Your task to perform on an android device: Open location settings Image 0: 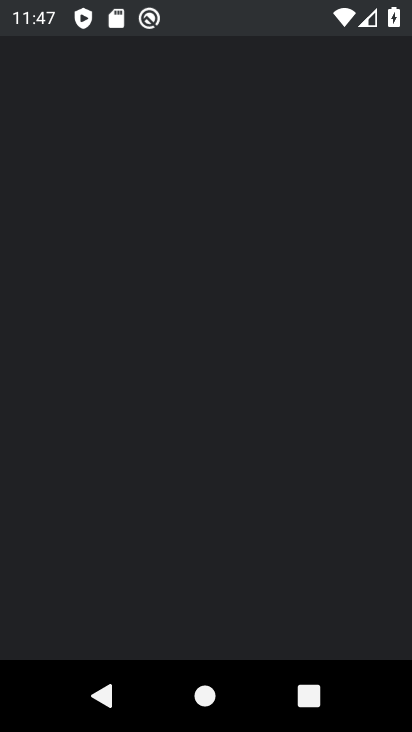
Step 0: drag from (369, 553) to (316, 88)
Your task to perform on an android device: Open location settings Image 1: 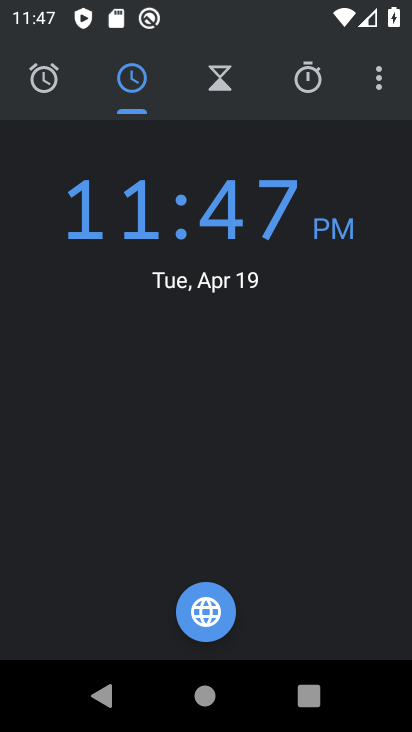
Step 1: press home button
Your task to perform on an android device: Open location settings Image 2: 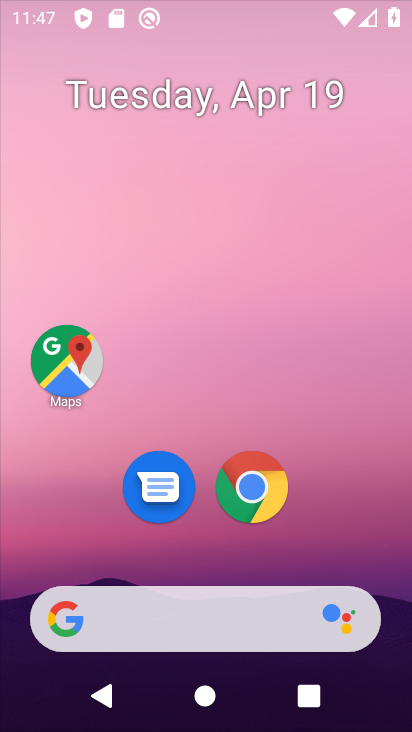
Step 2: drag from (353, 534) to (260, 0)
Your task to perform on an android device: Open location settings Image 3: 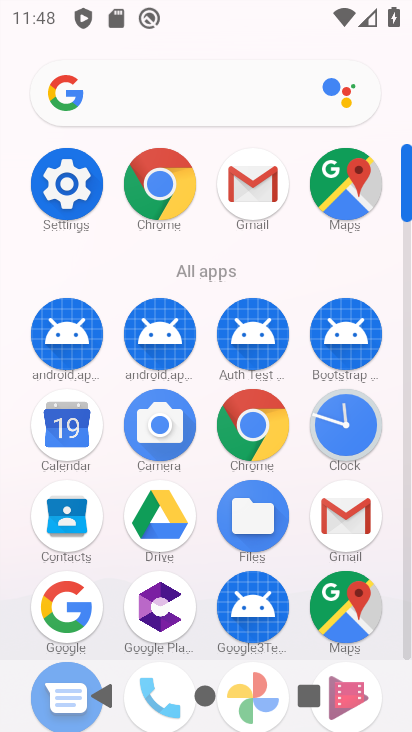
Step 3: click (66, 201)
Your task to perform on an android device: Open location settings Image 4: 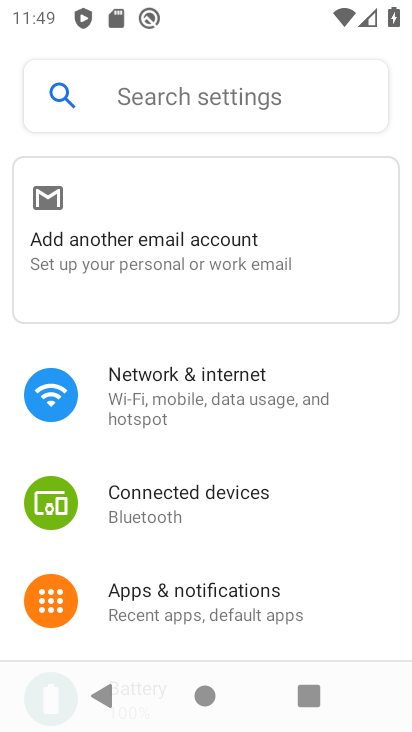
Step 4: drag from (227, 635) to (316, 139)
Your task to perform on an android device: Open location settings Image 5: 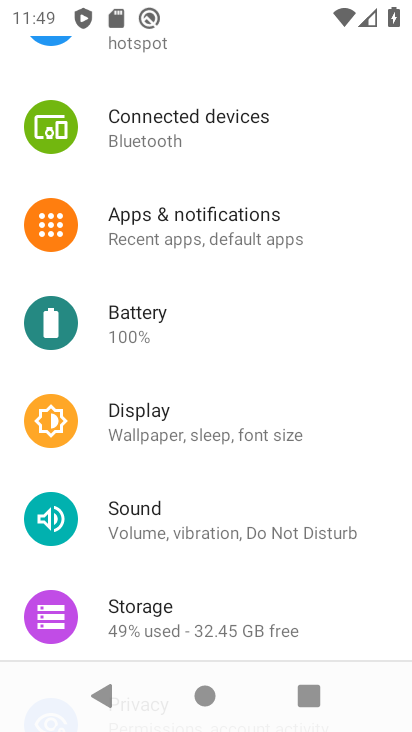
Step 5: drag from (165, 592) to (229, 168)
Your task to perform on an android device: Open location settings Image 6: 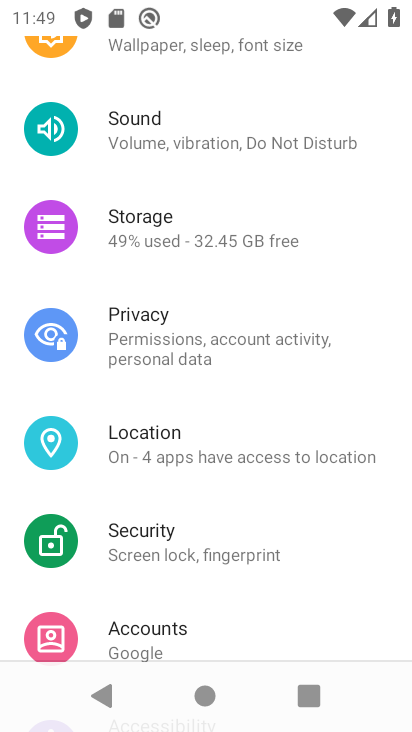
Step 6: click (206, 446)
Your task to perform on an android device: Open location settings Image 7: 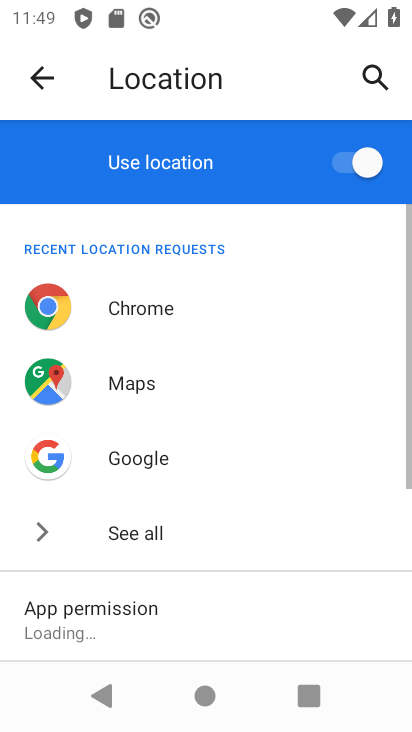
Step 7: task complete